Your task to perform on an android device: turn vacation reply on in the gmail app Image 0: 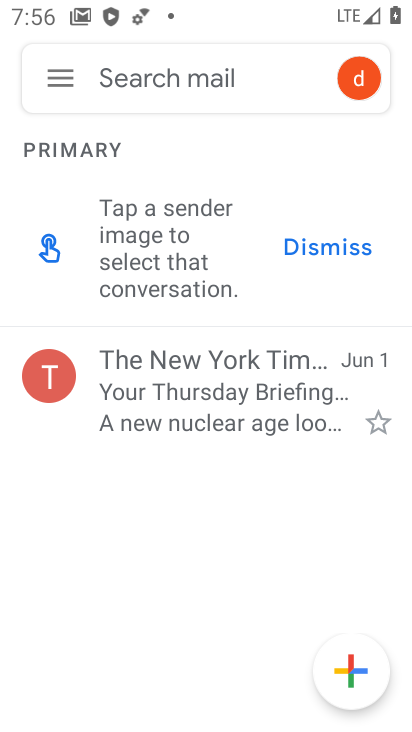
Step 0: click (40, 78)
Your task to perform on an android device: turn vacation reply on in the gmail app Image 1: 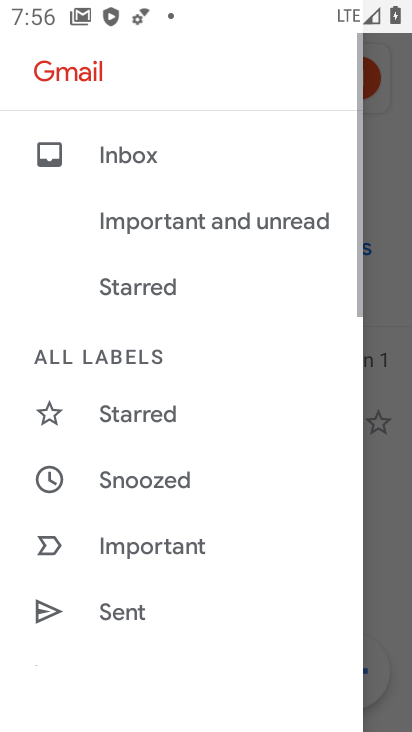
Step 1: drag from (163, 608) to (184, 228)
Your task to perform on an android device: turn vacation reply on in the gmail app Image 2: 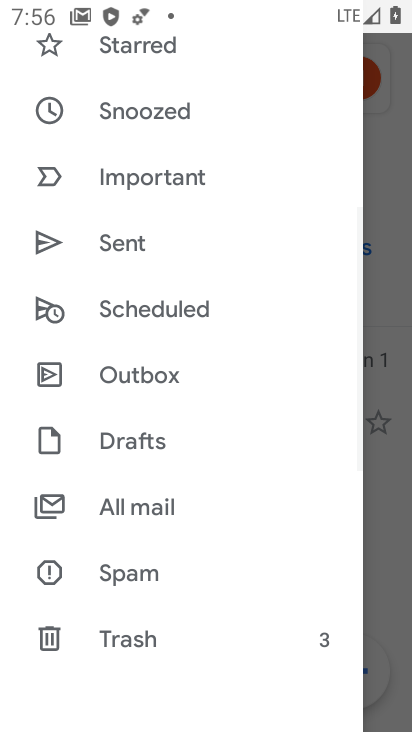
Step 2: drag from (178, 698) to (226, 295)
Your task to perform on an android device: turn vacation reply on in the gmail app Image 3: 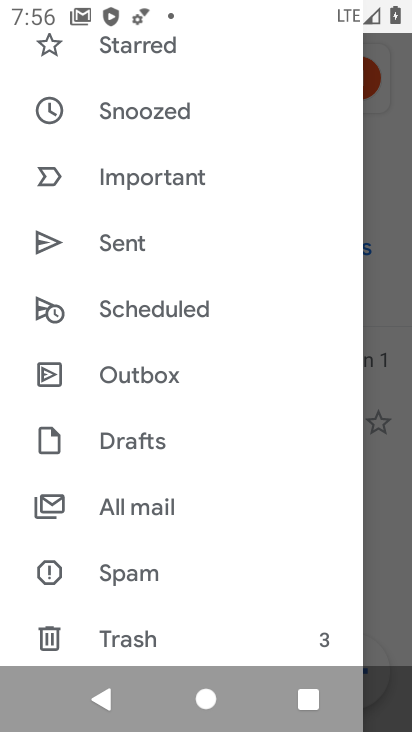
Step 3: drag from (187, 608) to (201, 228)
Your task to perform on an android device: turn vacation reply on in the gmail app Image 4: 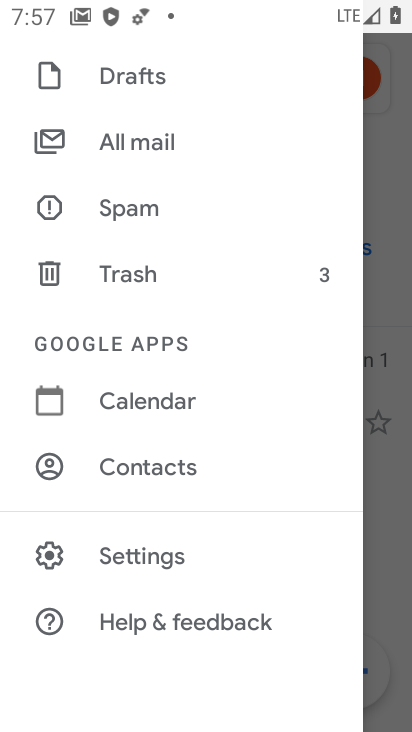
Step 4: click (55, 552)
Your task to perform on an android device: turn vacation reply on in the gmail app Image 5: 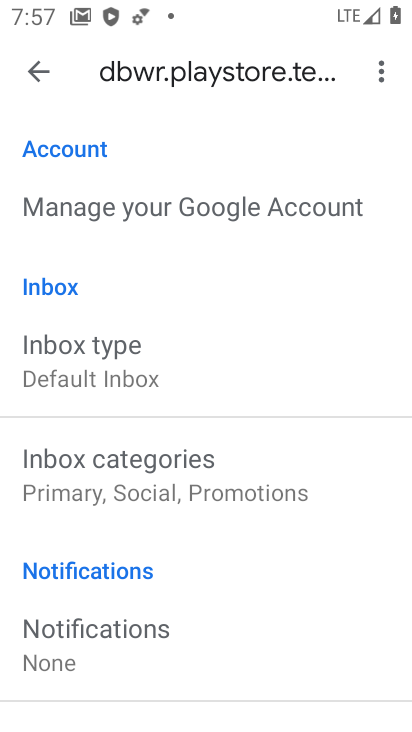
Step 5: drag from (123, 626) to (141, 268)
Your task to perform on an android device: turn vacation reply on in the gmail app Image 6: 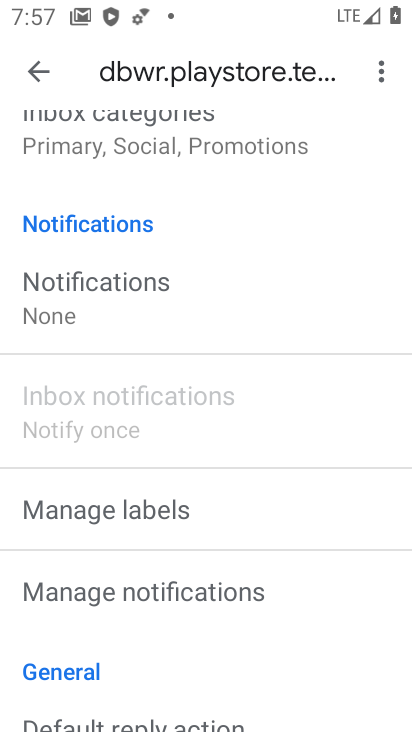
Step 6: drag from (169, 604) to (190, 227)
Your task to perform on an android device: turn vacation reply on in the gmail app Image 7: 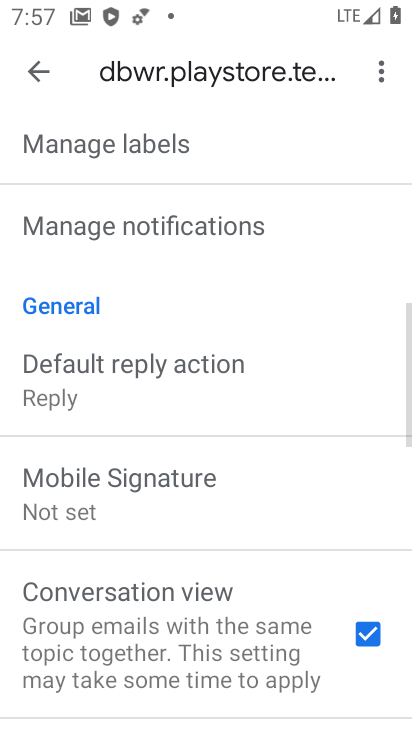
Step 7: drag from (182, 572) to (204, 250)
Your task to perform on an android device: turn vacation reply on in the gmail app Image 8: 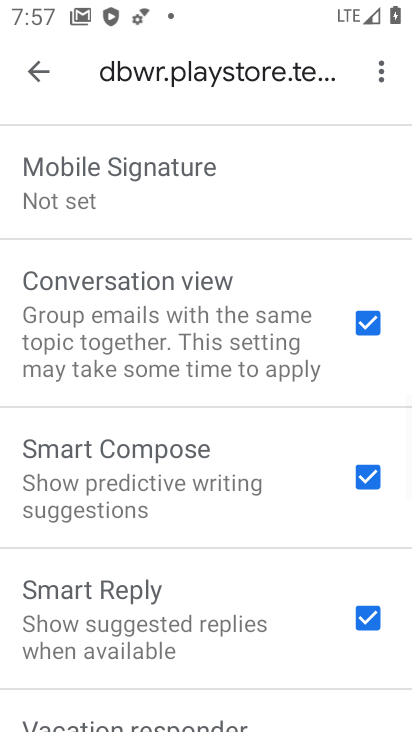
Step 8: drag from (236, 435) to (256, 158)
Your task to perform on an android device: turn vacation reply on in the gmail app Image 9: 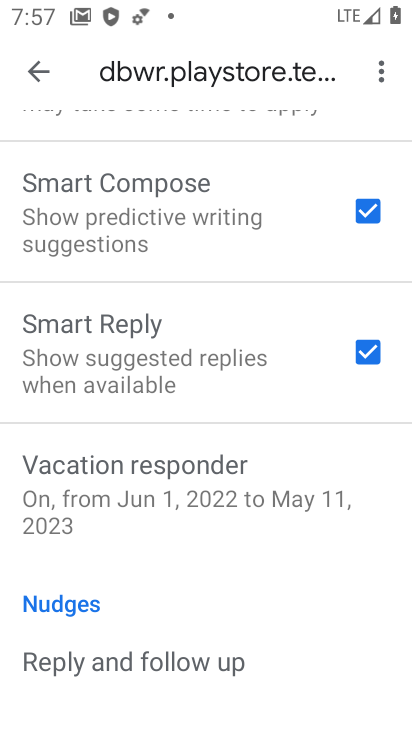
Step 9: click (178, 493)
Your task to perform on an android device: turn vacation reply on in the gmail app Image 10: 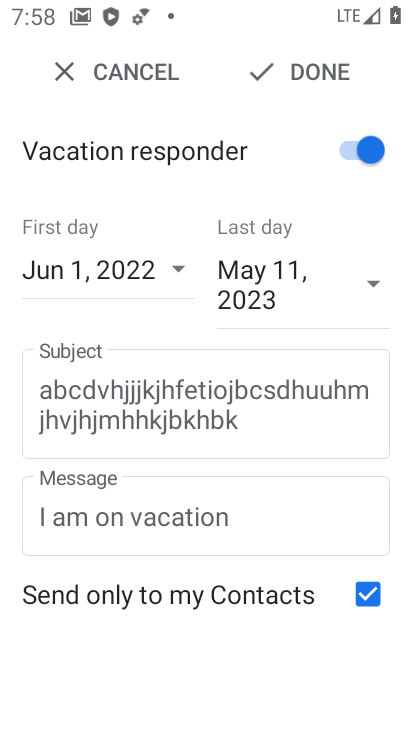
Step 10: task complete